Your task to perform on an android device: Open the phone app and click the voicemail tab. Image 0: 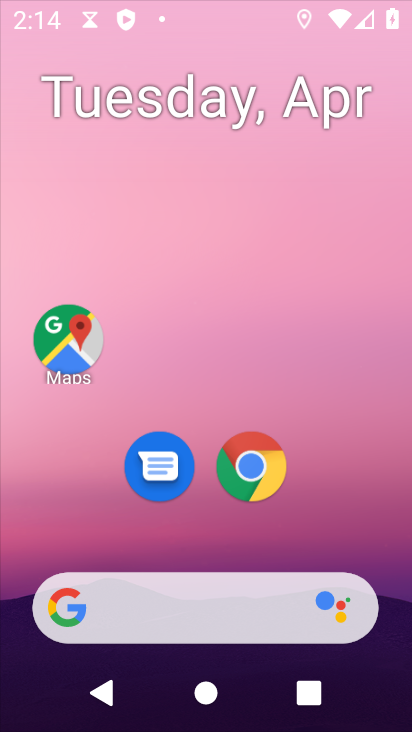
Step 0: drag from (383, 439) to (344, 44)
Your task to perform on an android device: Open the phone app and click the voicemail tab. Image 1: 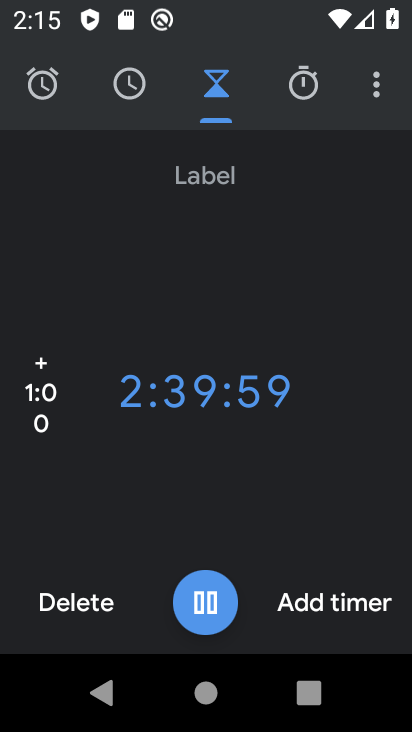
Step 1: press back button
Your task to perform on an android device: Open the phone app and click the voicemail tab. Image 2: 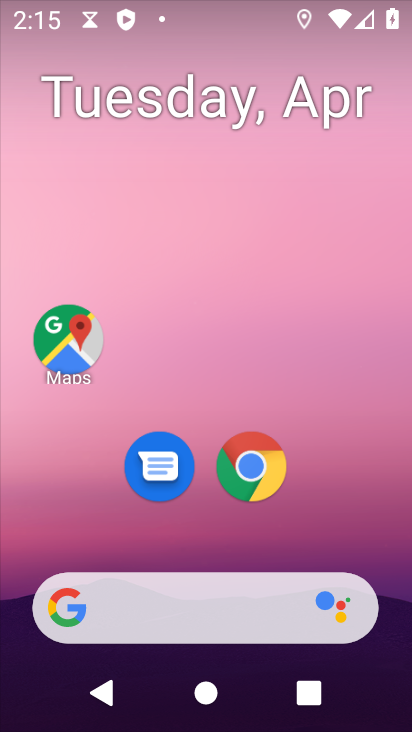
Step 2: drag from (320, 489) to (294, 53)
Your task to perform on an android device: Open the phone app and click the voicemail tab. Image 3: 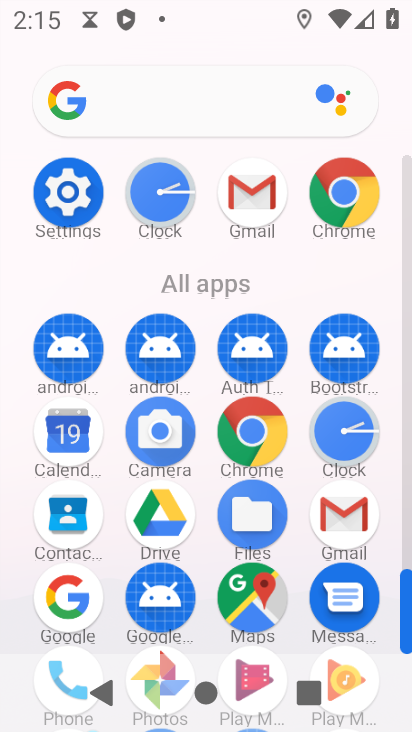
Step 3: drag from (13, 547) to (28, 353)
Your task to perform on an android device: Open the phone app and click the voicemail tab. Image 4: 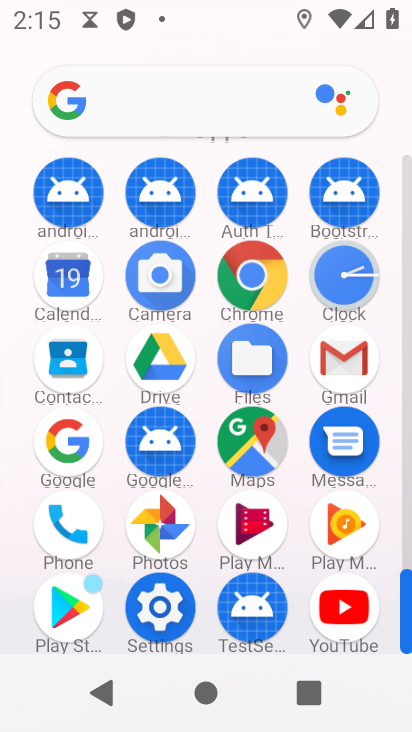
Step 4: click (66, 511)
Your task to perform on an android device: Open the phone app and click the voicemail tab. Image 5: 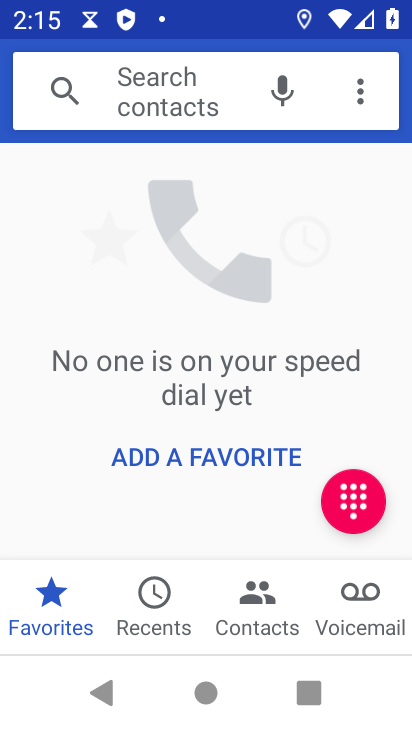
Step 5: click (341, 585)
Your task to perform on an android device: Open the phone app and click the voicemail tab. Image 6: 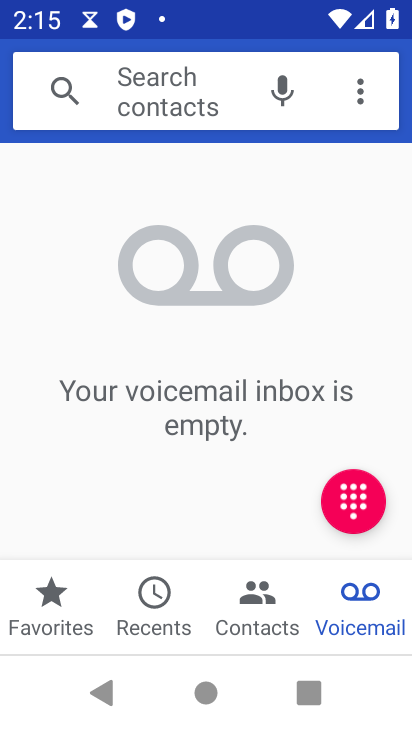
Step 6: task complete